Your task to perform on an android device: Open display settings Image 0: 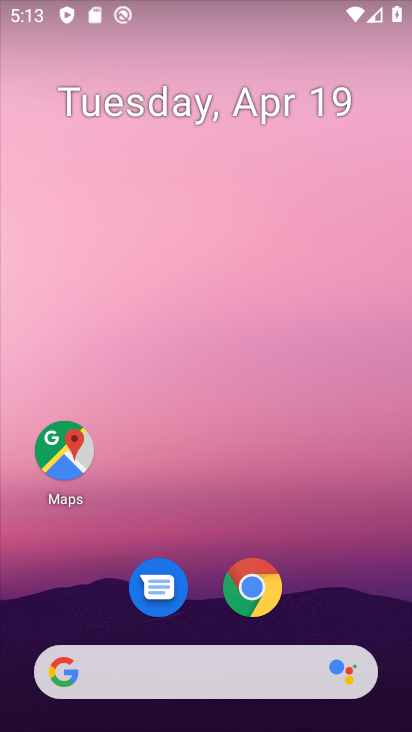
Step 0: drag from (253, 25) to (83, 664)
Your task to perform on an android device: Open display settings Image 1: 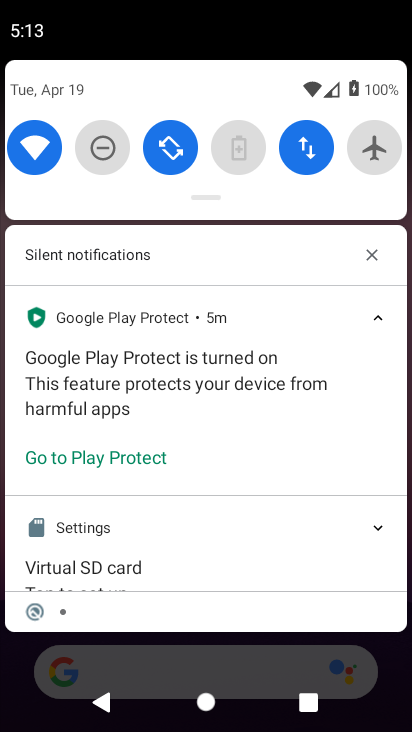
Step 1: drag from (254, 72) to (64, 675)
Your task to perform on an android device: Open display settings Image 2: 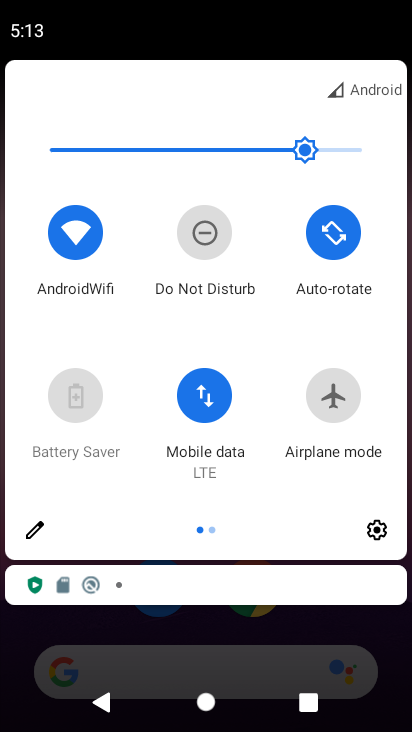
Step 2: click (385, 540)
Your task to perform on an android device: Open display settings Image 3: 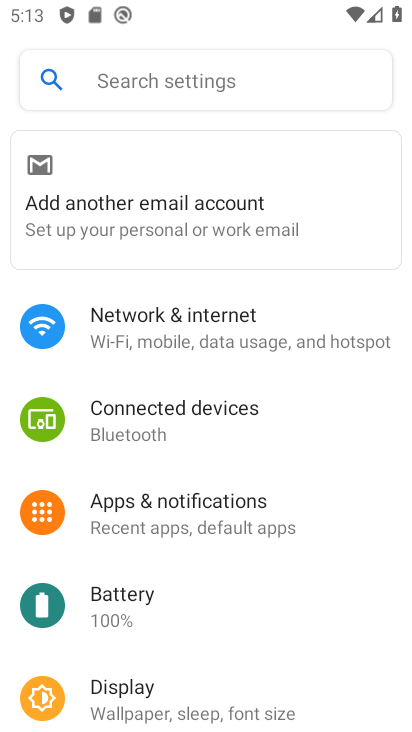
Step 3: drag from (145, 705) to (219, 200)
Your task to perform on an android device: Open display settings Image 4: 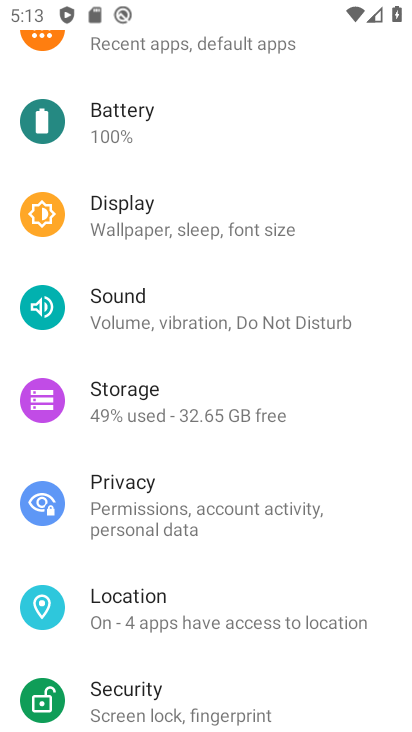
Step 4: click (168, 215)
Your task to perform on an android device: Open display settings Image 5: 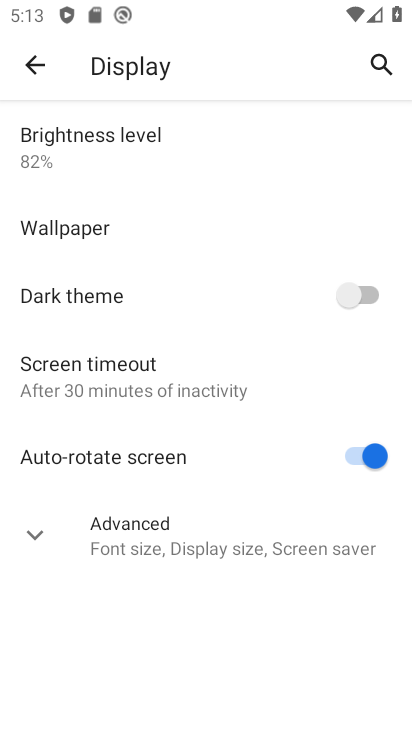
Step 5: task complete